Your task to perform on an android device: open app "YouTube Kids" (install if not already installed) Image 0: 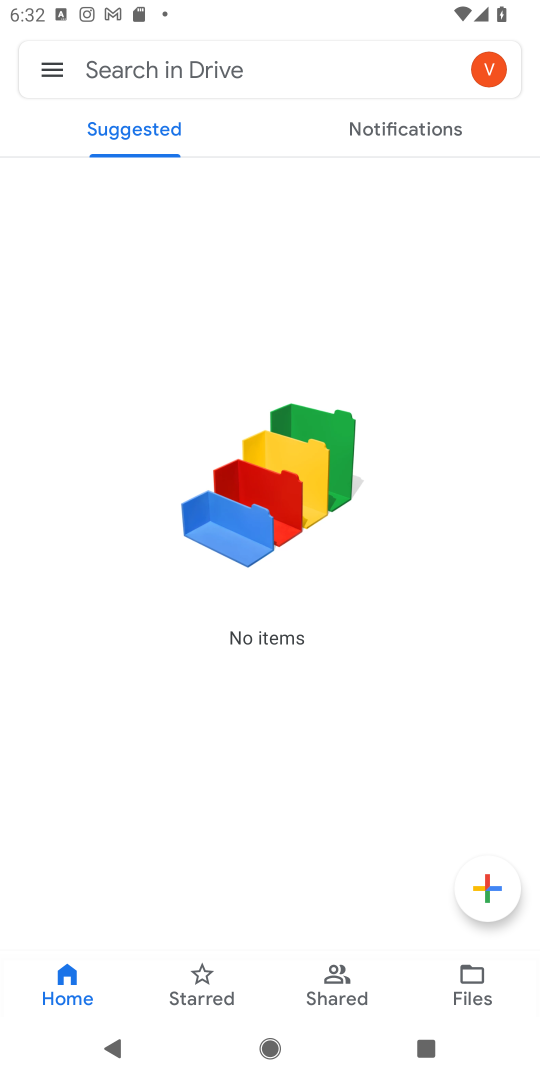
Step 0: press home button
Your task to perform on an android device: open app "YouTube Kids" (install if not already installed) Image 1: 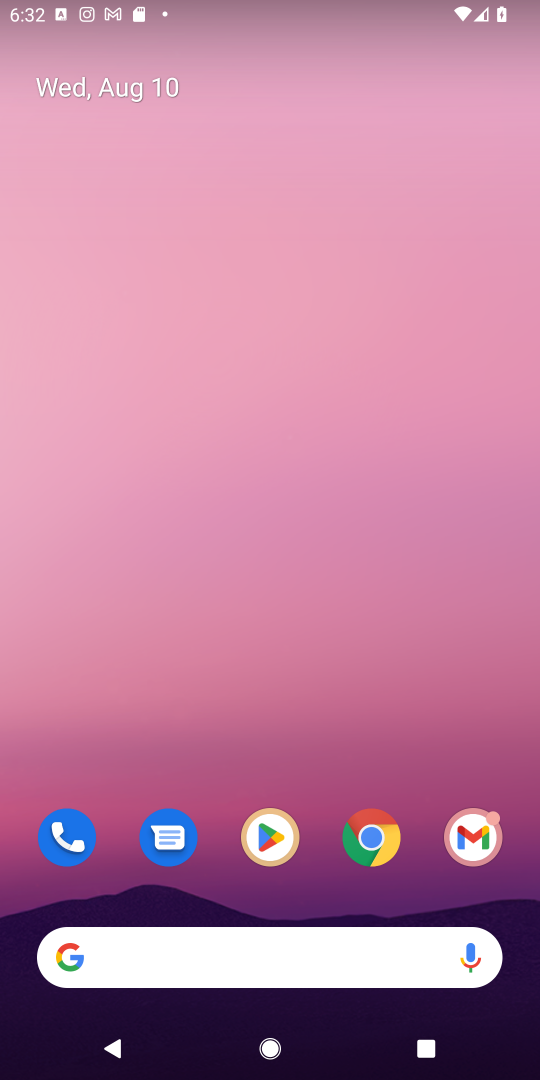
Step 1: click (266, 841)
Your task to perform on an android device: open app "YouTube Kids" (install if not already installed) Image 2: 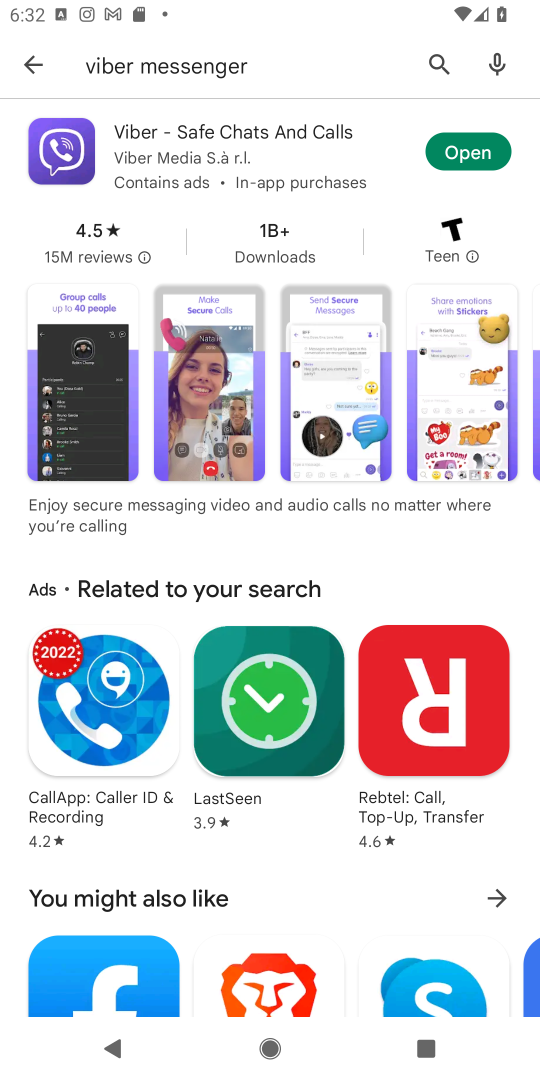
Step 2: click (436, 55)
Your task to perform on an android device: open app "YouTube Kids" (install if not already installed) Image 3: 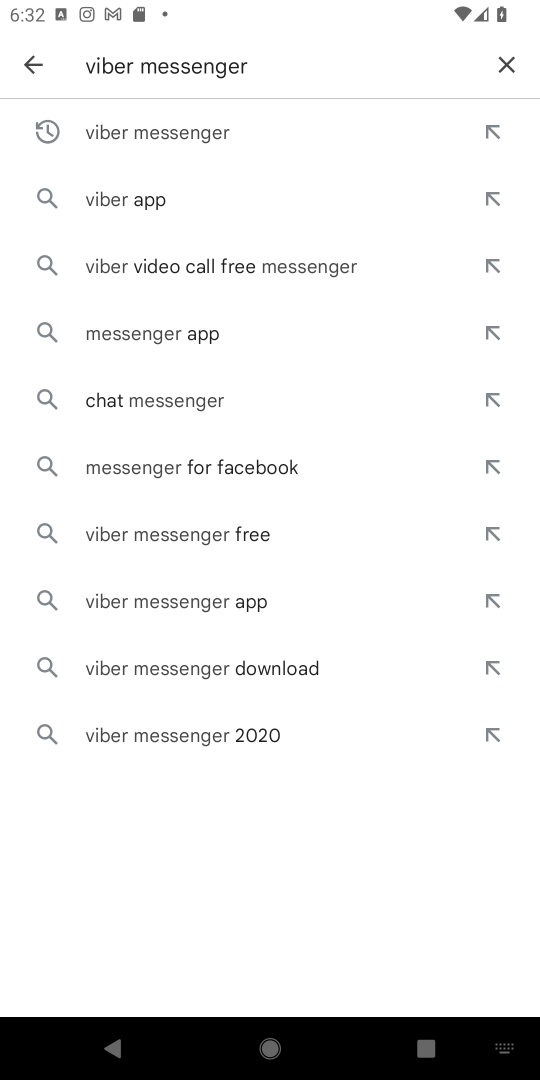
Step 3: click (504, 60)
Your task to perform on an android device: open app "YouTube Kids" (install if not already installed) Image 4: 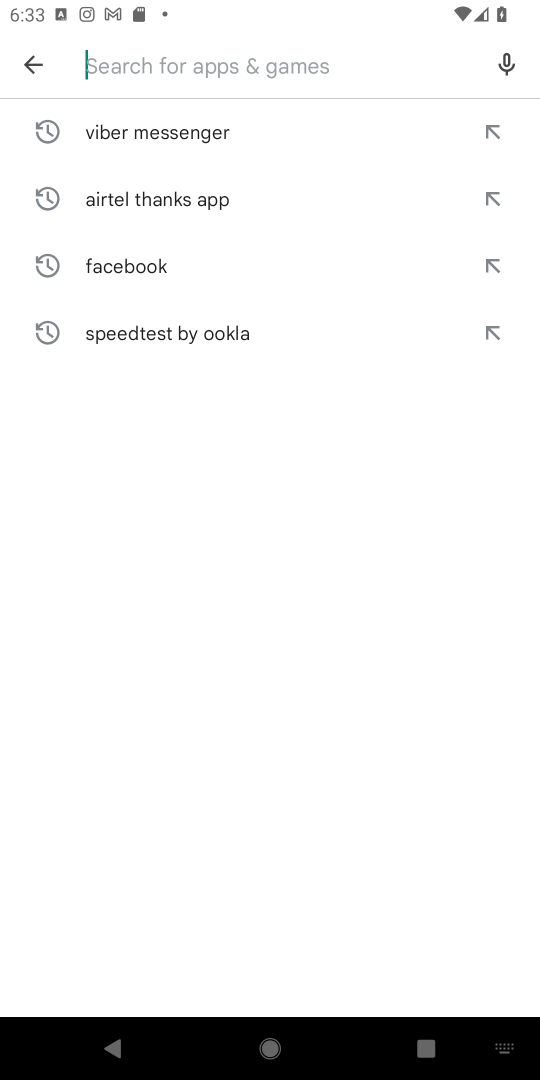
Step 4: type "YouTube Kids"
Your task to perform on an android device: open app "YouTube Kids" (install if not already installed) Image 5: 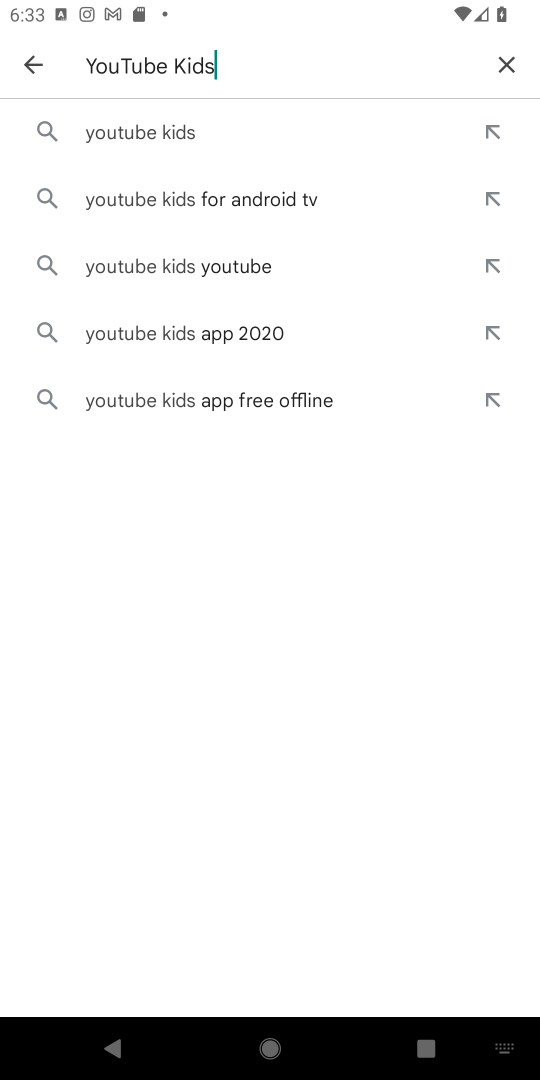
Step 5: click (147, 143)
Your task to perform on an android device: open app "YouTube Kids" (install if not already installed) Image 6: 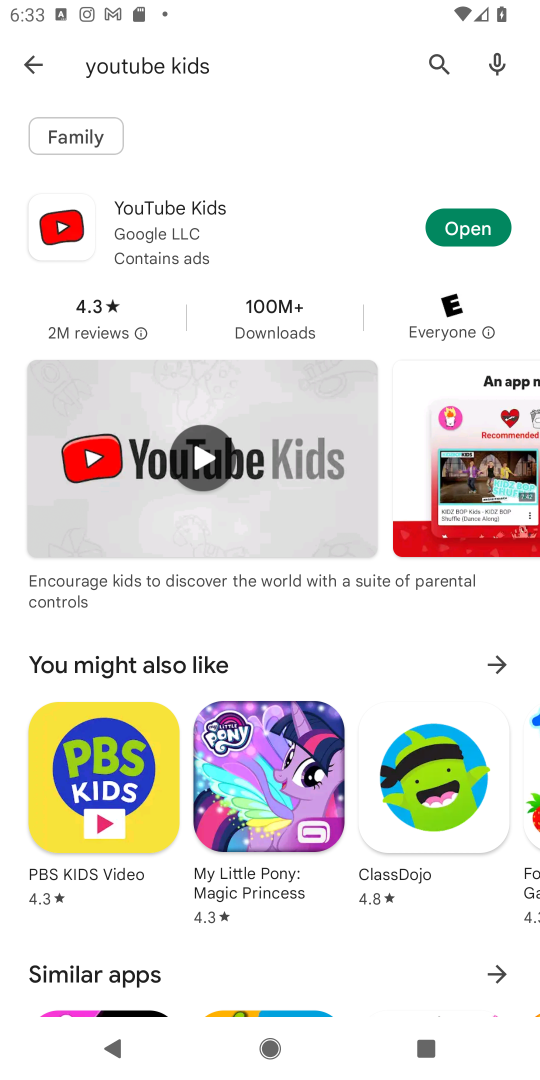
Step 6: click (459, 215)
Your task to perform on an android device: open app "YouTube Kids" (install if not already installed) Image 7: 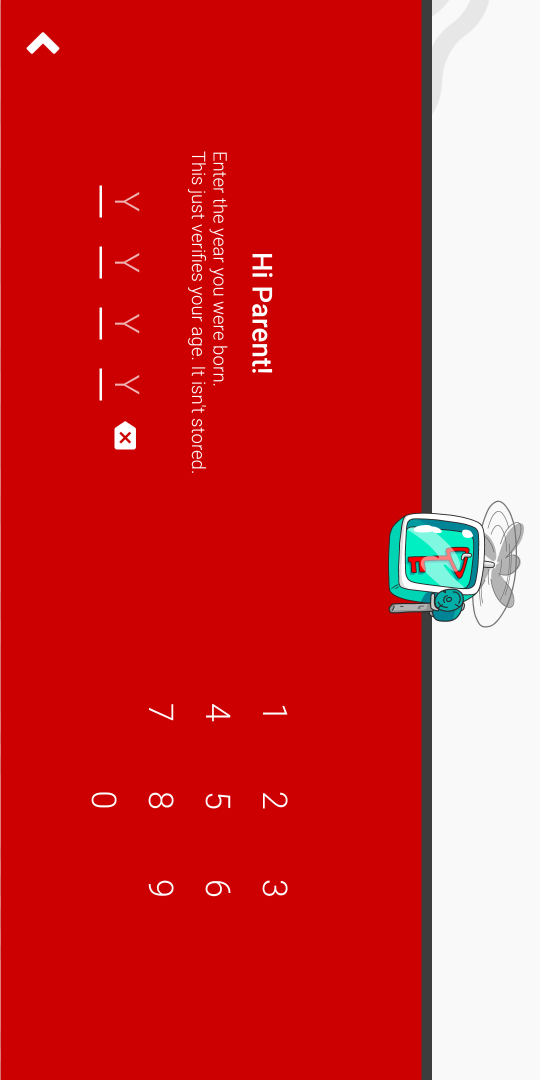
Step 7: task complete